Your task to perform on an android device: Check the news Image 0: 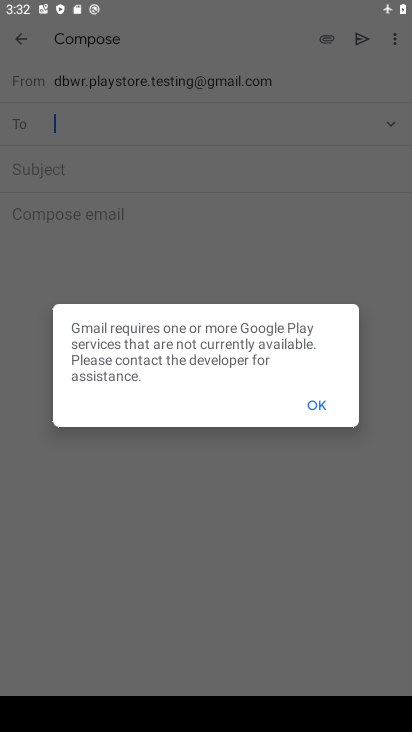
Step 0: press home button
Your task to perform on an android device: Check the news Image 1: 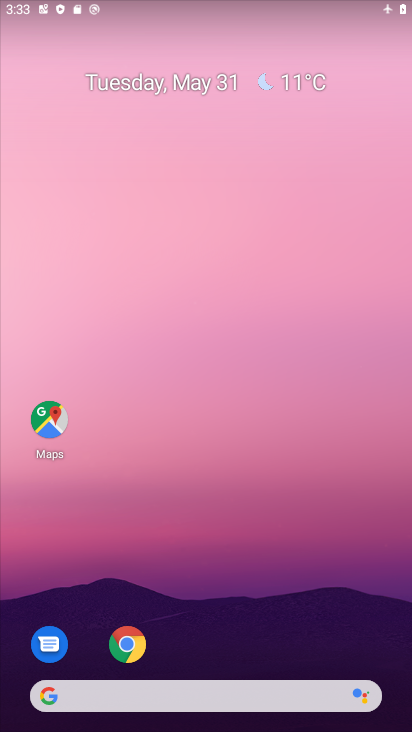
Step 1: click (176, 701)
Your task to perform on an android device: Check the news Image 2: 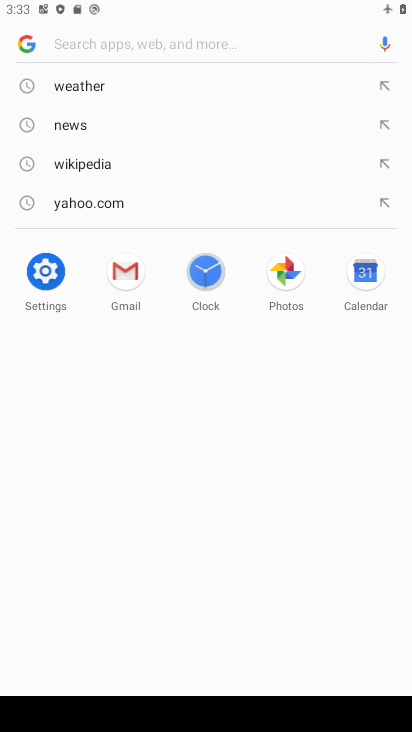
Step 2: click (44, 129)
Your task to perform on an android device: Check the news Image 3: 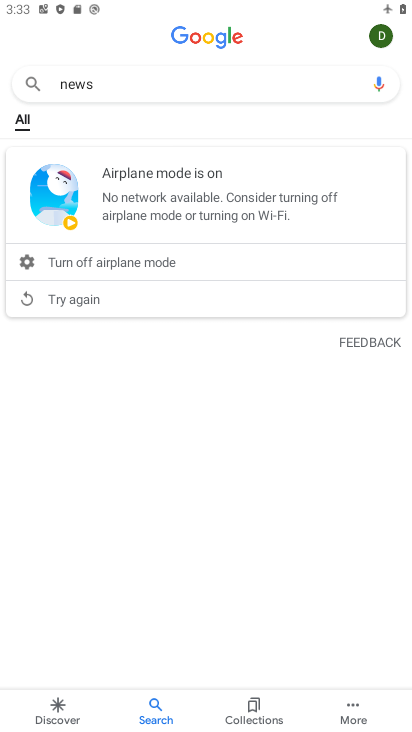
Step 3: drag from (256, 4) to (170, 613)
Your task to perform on an android device: Check the news Image 4: 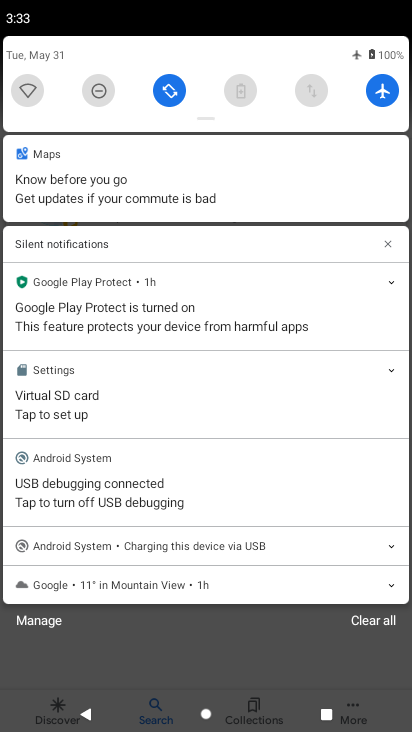
Step 4: click (366, 92)
Your task to perform on an android device: Check the news Image 5: 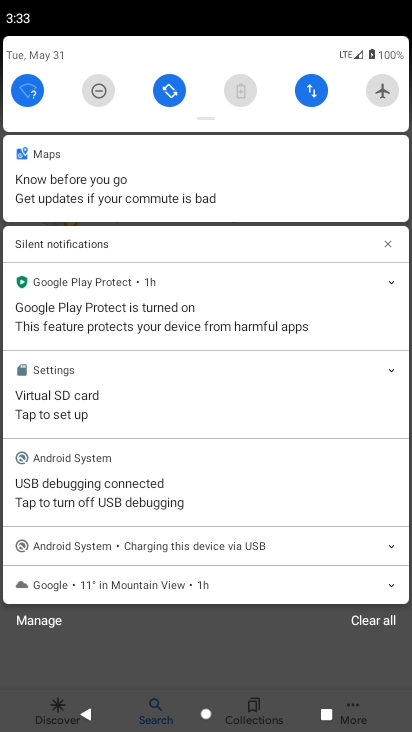
Step 5: drag from (206, 655) to (201, 100)
Your task to perform on an android device: Check the news Image 6: 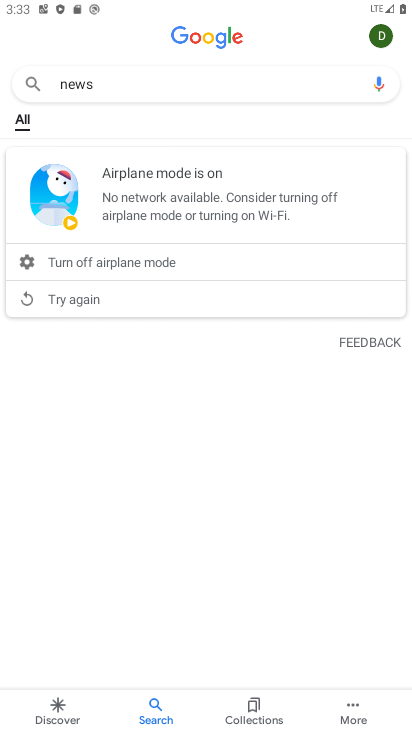
Step 6: click (161, 299)
Your task to perform on an android device: Check the news Image 7: 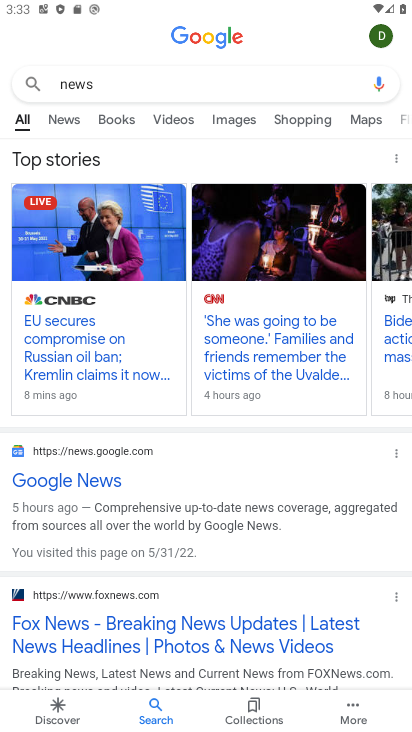
Step 7: task complete